Your task to perform on an android device: Search for usb-a on costco.com, select the first entry, and add it to the cart. Image 0: 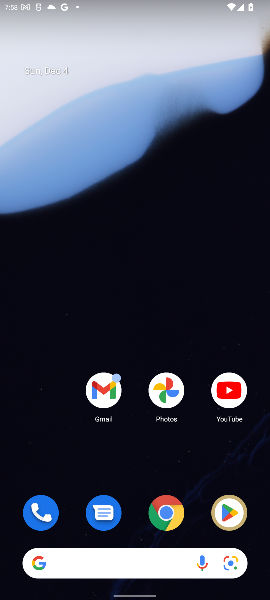
Step 0: click (161, 511)
Your task to perform on an android device: Search for usb-a on costco.com, select the first entry, and add it to the cart. Image 1: 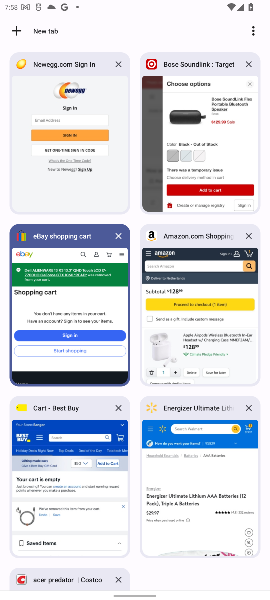
Step 1: click (77, 579)
Your task to perform on an android device: Search for usb-a on costco.com, select the first entry, and add it to the cart. Image 2: 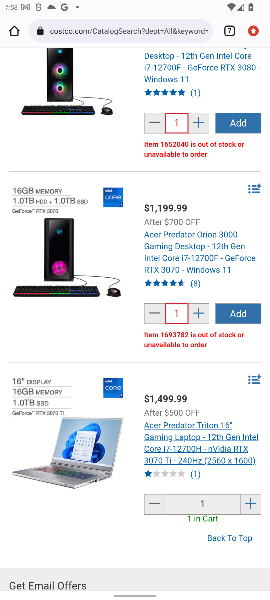
Step 2: drag from (127, 153) to (68, 490)
Your task to perform on an android device: Search for usb-a on costco.com, select the first entry, and add it to the cart. Image 3: 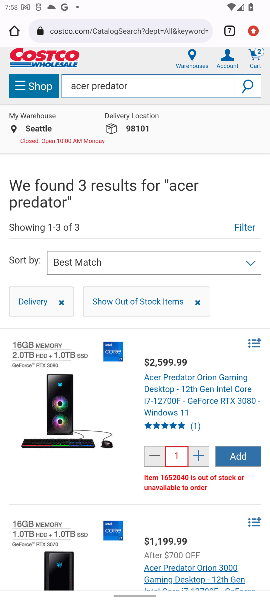
Step 3: click (154, 88)
Your task to perform on an android device: Search for usb-a on costco.com, select the first entry, and add it to the cart. Image 4: 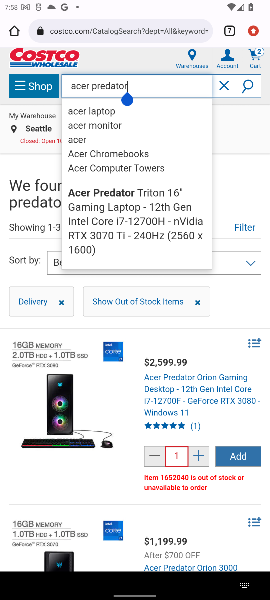
Step 4: click (225, 83)
Your task to perform on an android device: Search for usb-a on costco.com, select the first entry, and add it to the cart. Image 5: 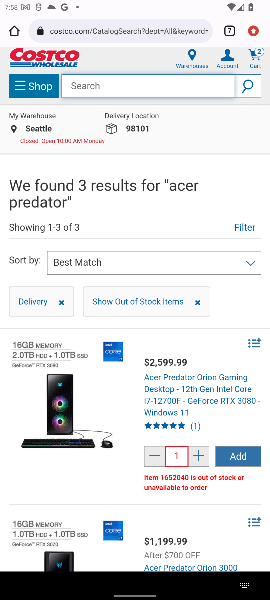
Step 5: type "usb-a "
Your task to perform on an android device: Search for usb-a on costco.com, select the first entry, and add it to the cart. Image 6: 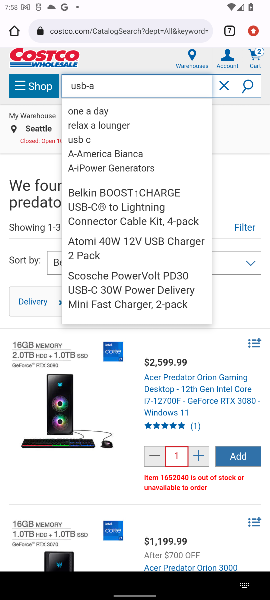
Step 6: click (251, 86)
Your task to perform on an android device: Search for usb-a on costco.com, select the first entry, and add it to the cart. Image 7: 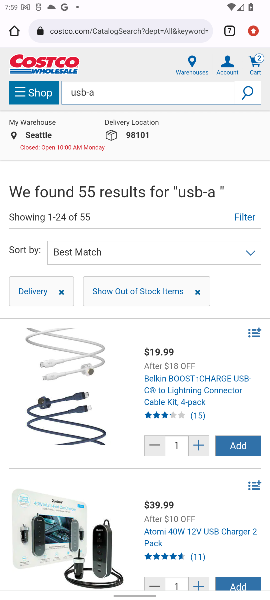
Step 7: click (205, 113)
Your task to perform on an android device: Search for usb-a on costco.com, select the first entry, and add it to the cart. Image 8: 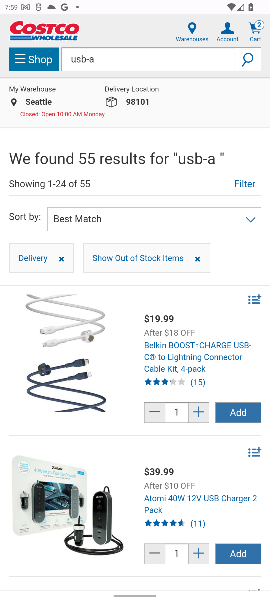
Step 8: click (131, 524)
Your task to perform on an android device: Search for usb-a on costco.com, select the first entry, and add it to the cart. Image 9: 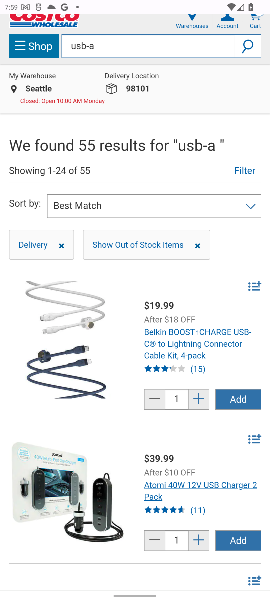
Step 9: task complete